Your task to perform on an android device: Search for Mexican restaurants on Maps Image 0: 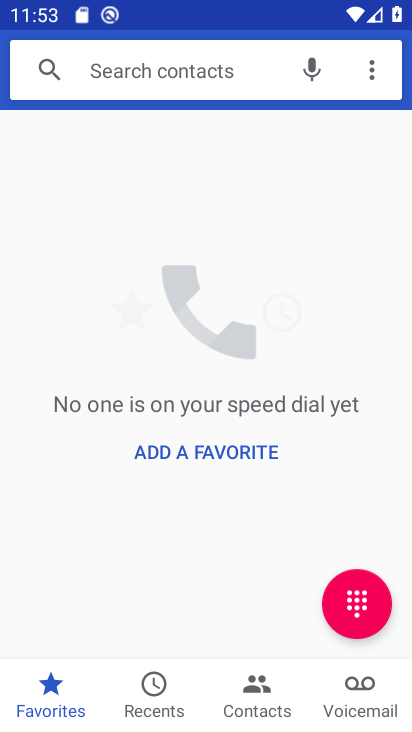
Step 0: press home button
Your task to perform on an android device: Search for Mexican restaurants on Maps Image 1: 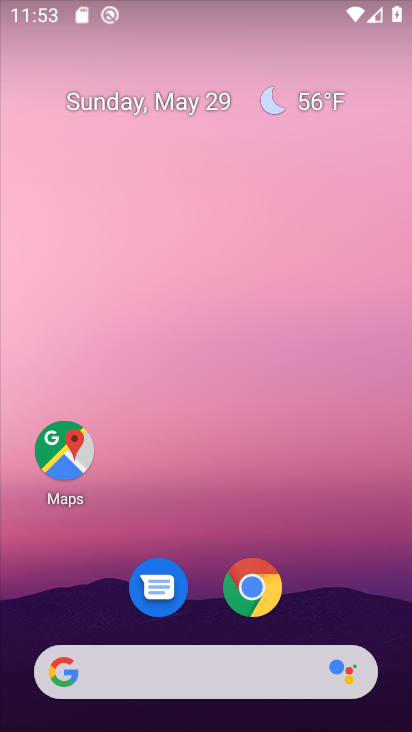
Step 1: drag from (337, 623) to (257, 159)
Your task to perform on an android device: Search for Mexican restaurants on Maps Image 2: 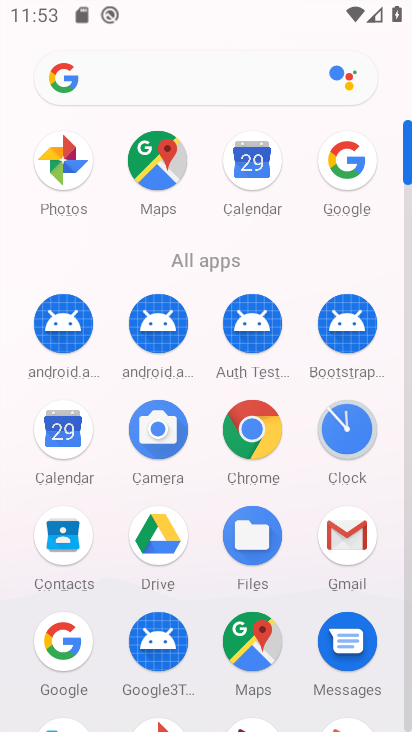
Step 2: click (152, 184)
Your task to perform on an android device: Search for Mexican restaurants on Maps Image 3: 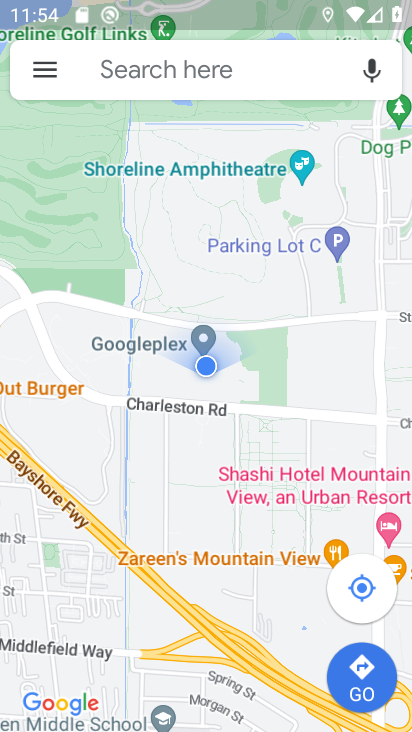
Step 3: click (172, 69)
Your task to perform on an android device: Search for Mexican restaurants on Maps Image 4: 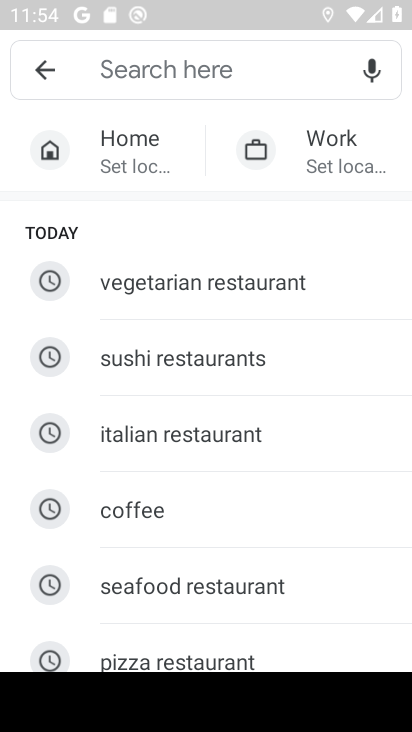
Step 4: type "mexican restaurants"
Your task to perform on an android device: Search for Mexican restaurants on Maps Image 5: 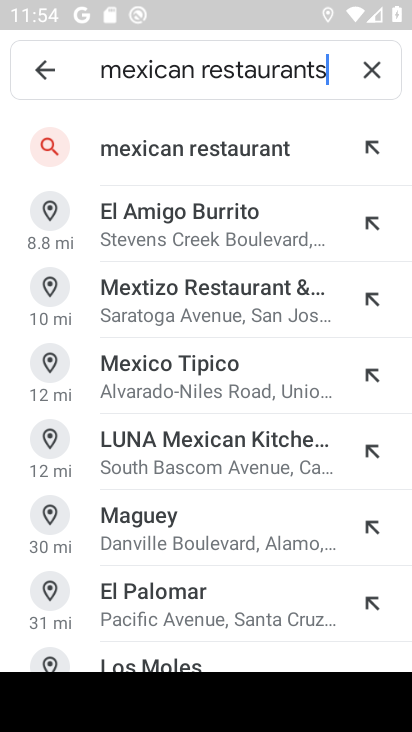
Step 5: click (258, 143)
Your task to perform on an android device: Search for Mexican restaurants on Maps Image 6: 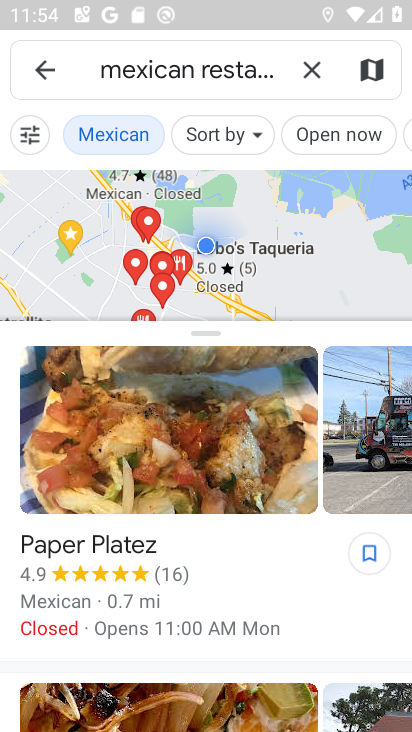
Step 6: task complete